Your task to perform on an android device: Search for "sony triple a" on walmart.com, select the first entry, and add it to the cart. Image 0: 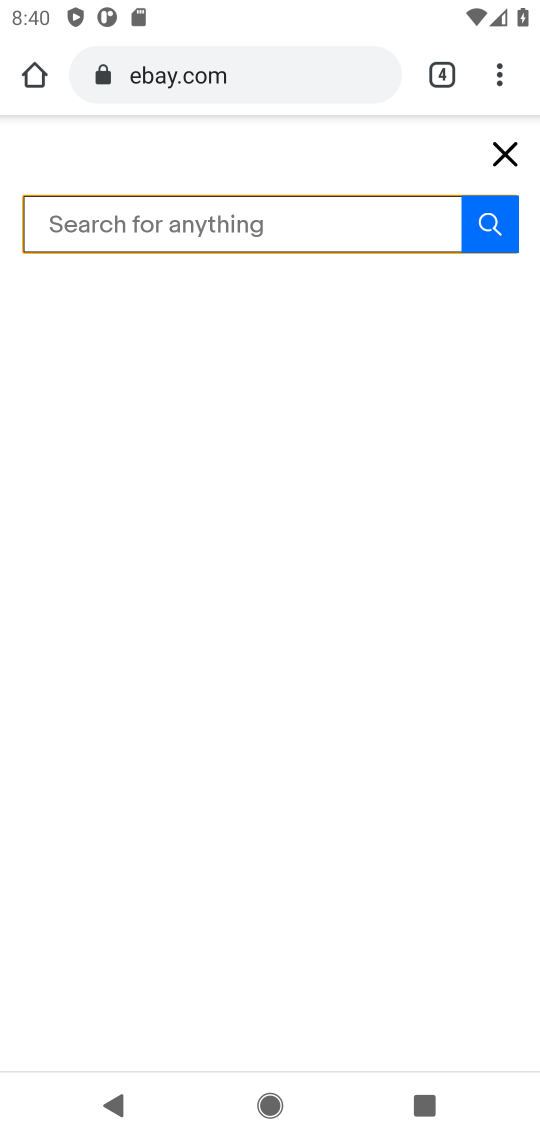
Step 0: press home button
Your task to perform on an android device: Search for "sony triple a" on walmart.com, select the first entry, and add it to the cart. Image 1: 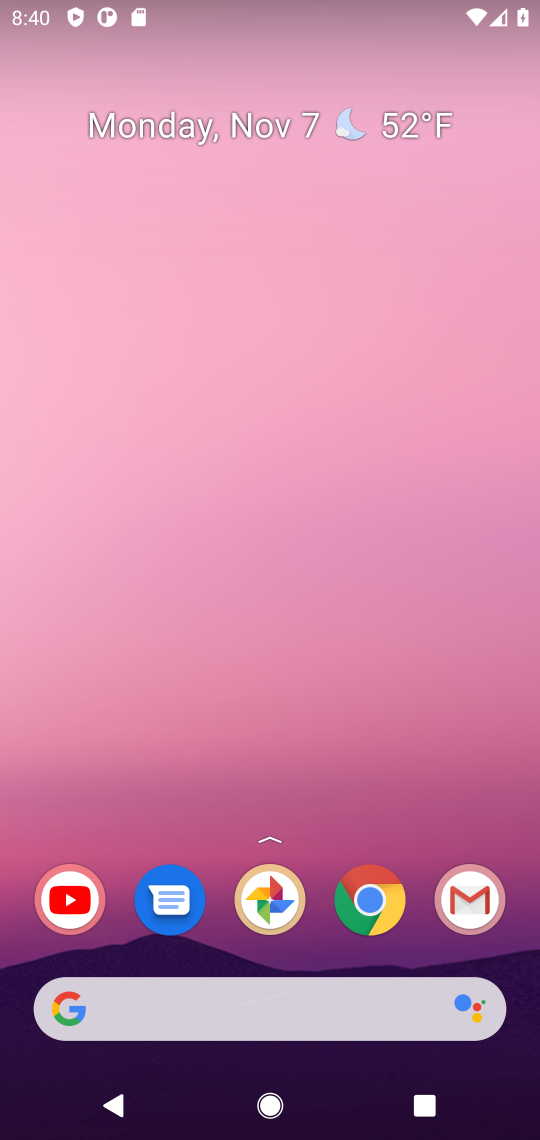
Step 1: click (324, 1008)
Your task to perform on an android device: Search for "sony triple a" on walmart.com, select the first entry, and add it to the cart. Image 2: 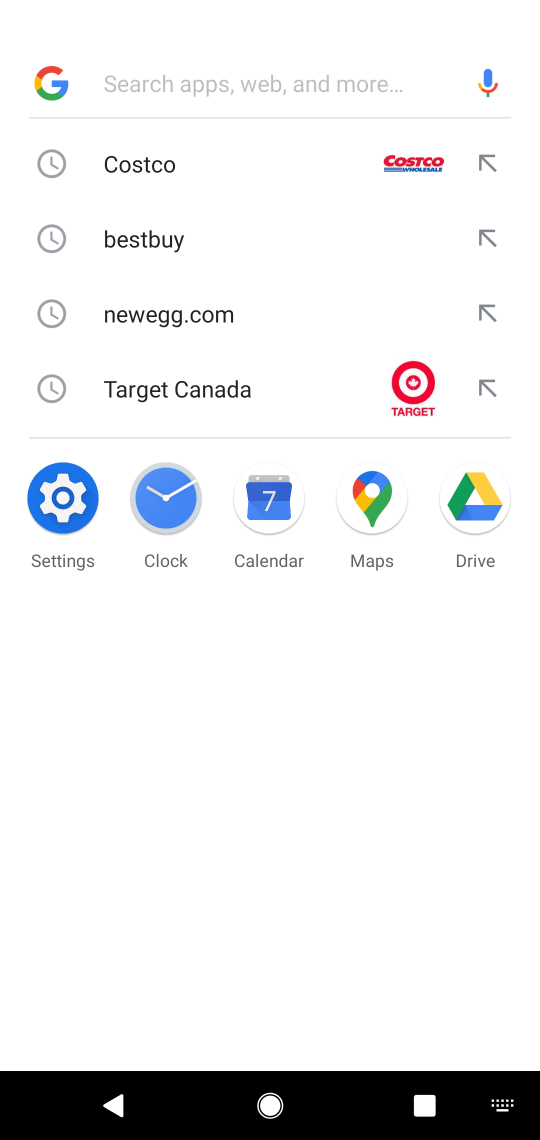
Step 2: type "walmart"
Your task to perform on an android device: Search for "sony triple a" on walmart.com, select the first entry, and add it to the cart. Image 3: 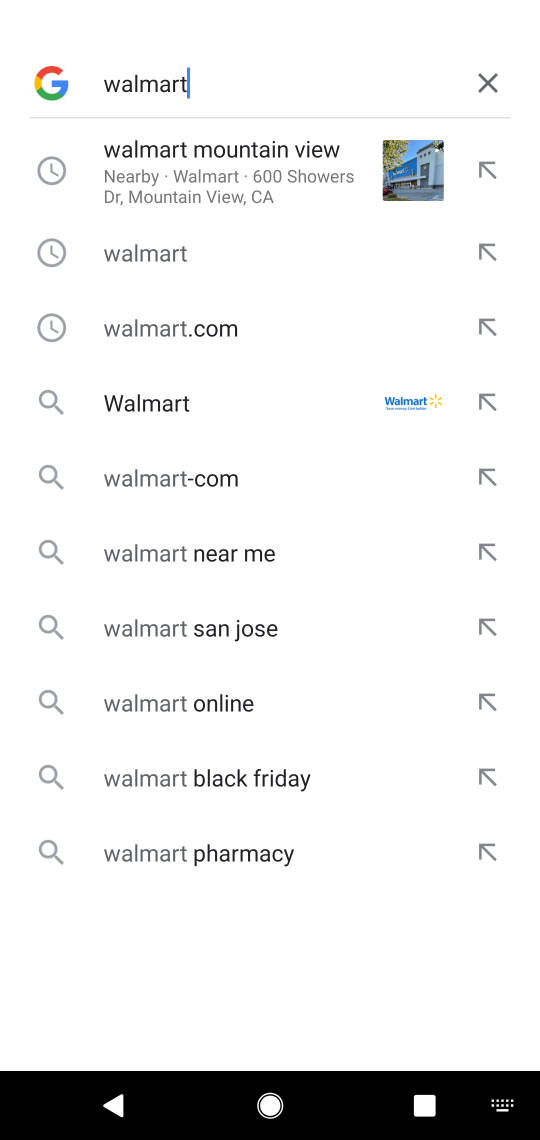
Step 3: click (251, 179)
Your task to perform on an android device: Search for "sony triple a" on walmart.com, select the first entry, and add it to the cart. Image 4: 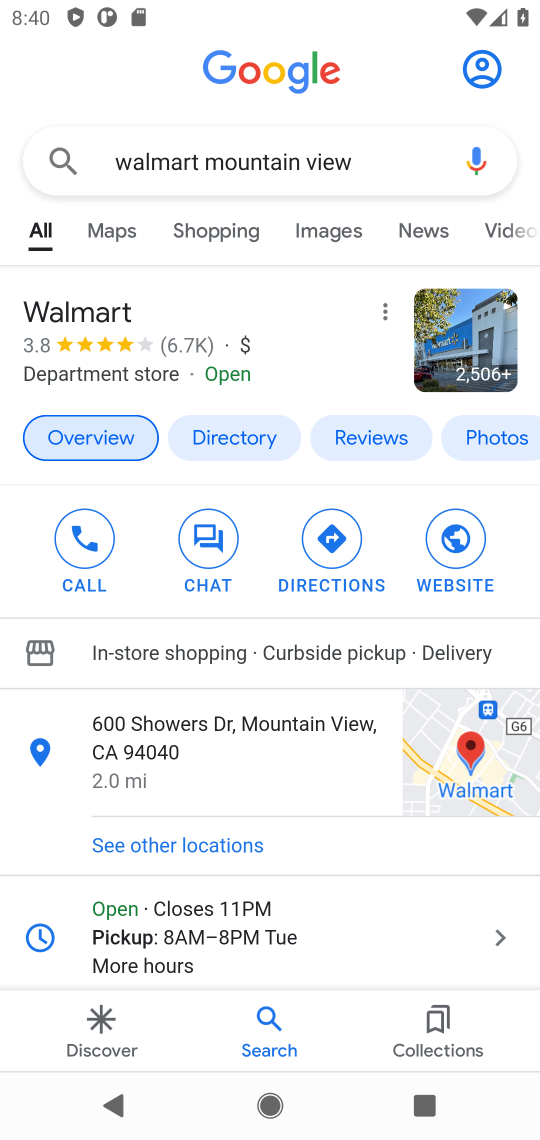
Step 4: click (130, 321)
Your task to perform on an android device: Search for "sony triple a" on walmart.com, select the first entry, and add it to the cart. Image 5: 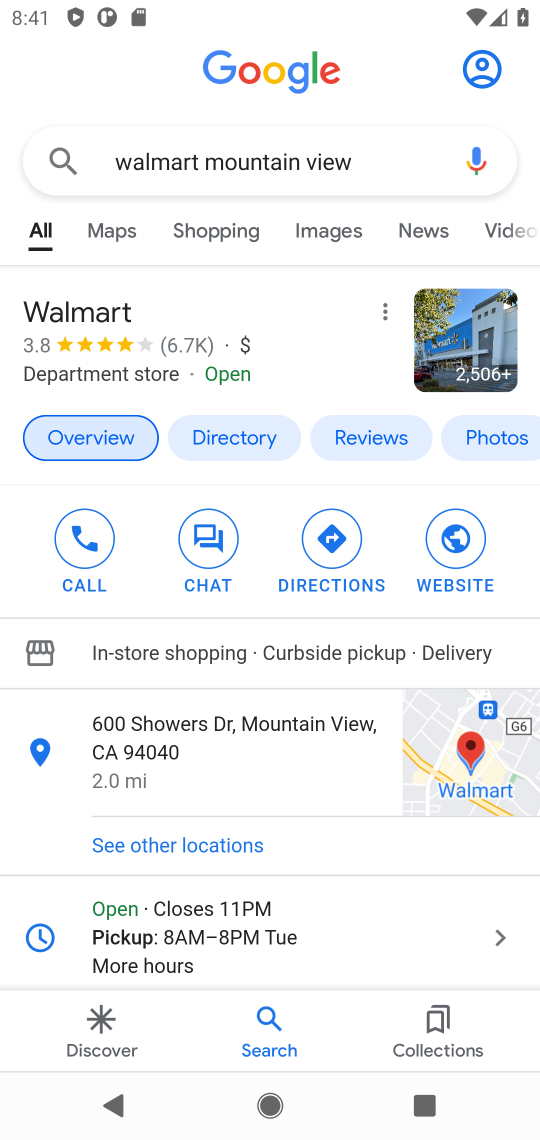
Step 5: task complete